Your task to perform on an android device: change the clock style Image 0: 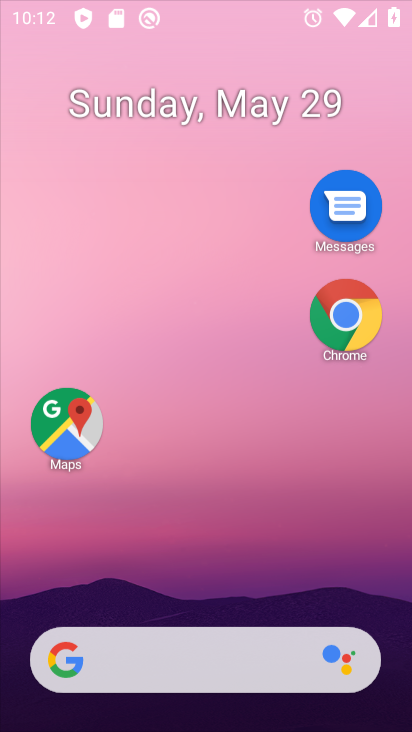
Step 0: click (336, 295)
Your task to perform on an android device: change the clock style Image 1: 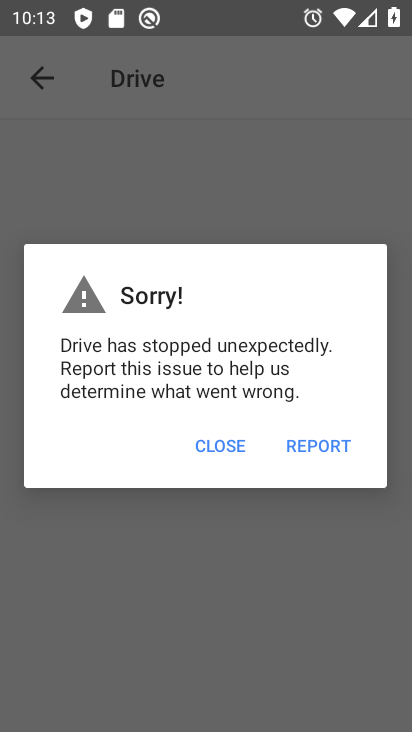
Step 1: click (223, 430)
Your task to perform on an android device: change the clock style Image 2: 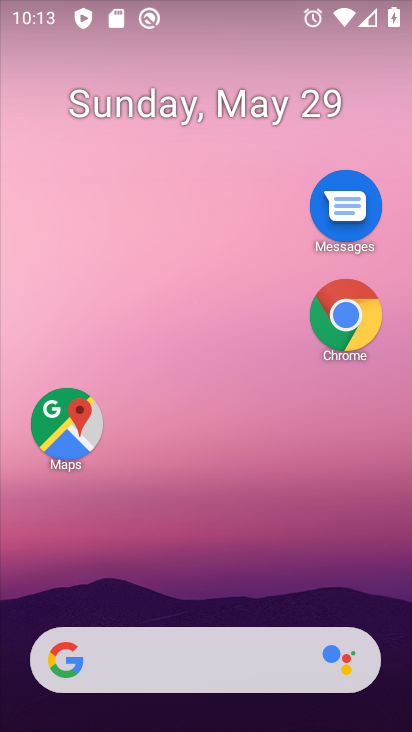
Step 2: drag from (224, 586) to (216, 189)
Your task to perform on an android device: change the clock style Image 3: 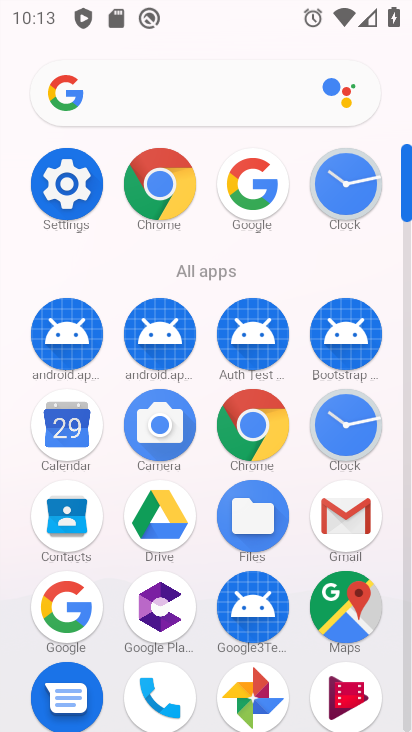
Step 3: click (334, 423)
Your task to perform on an android device: change the clock style Image 4: 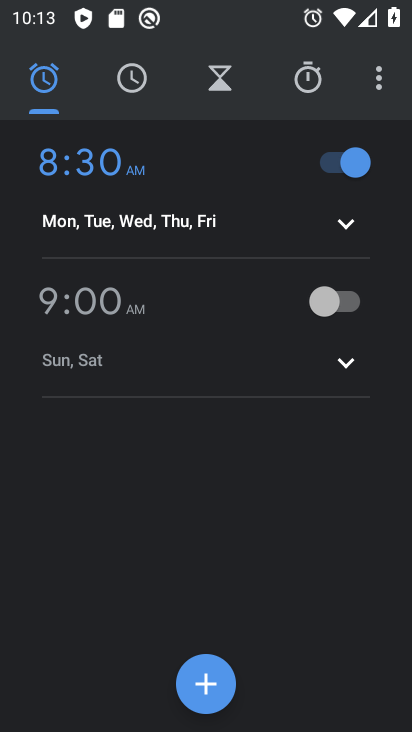
Step 4: click (381, 84)
Your task to perform on an android device: change the clock style Image 5: 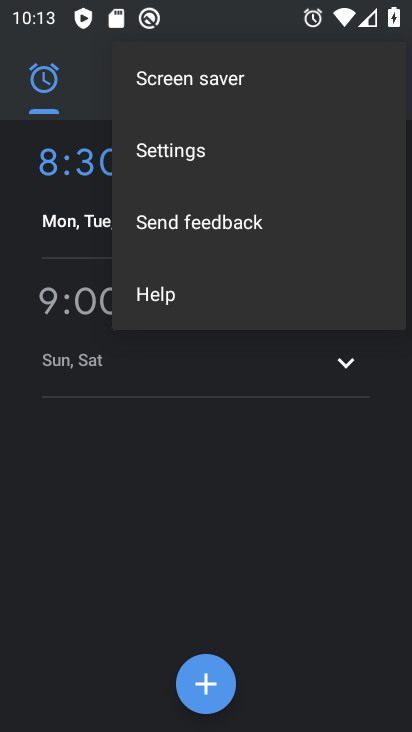
Step 5: click (238, 168)
Your task to perform on an android device: change the clock style Image 6: 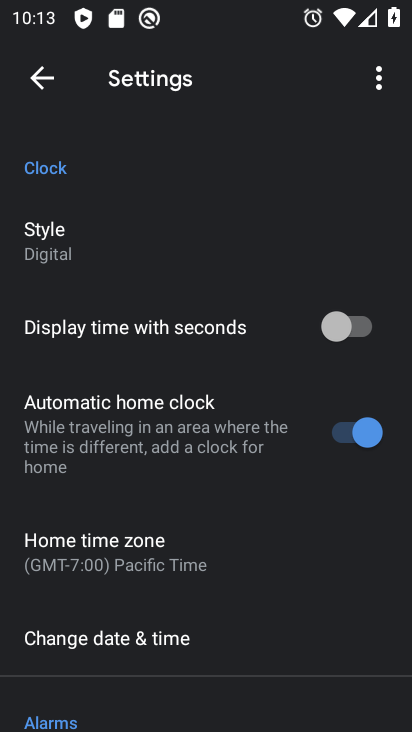
Step 6: click (74, 252)
Your task to perform on an android device: change the clock style Image 7: 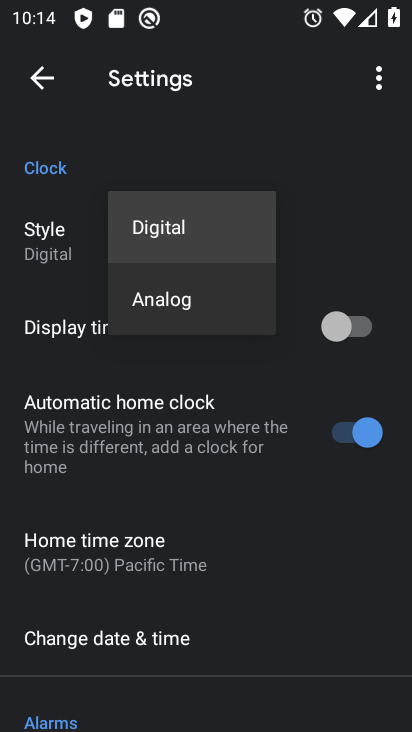
Step 7: click (188, 313)
Your task to perform on an android device: change the clock style Image 8: 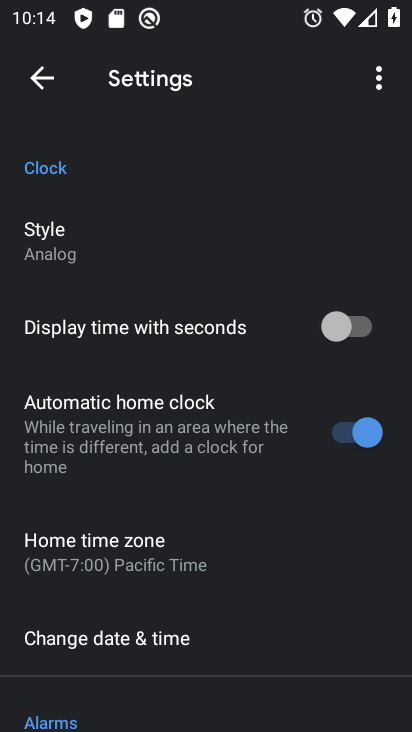
Step 8: task complete